Your task to perform on an android device: Turn on the flashlight Image 0: 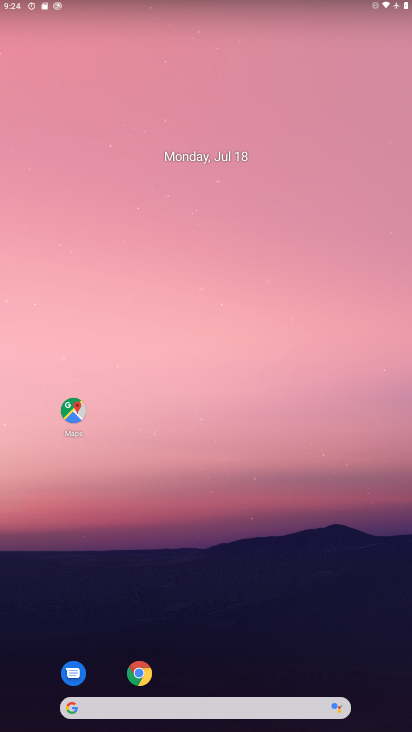
Step 0: press home button
Your task to perform on an android device: Turn on the flashlight Image 1: 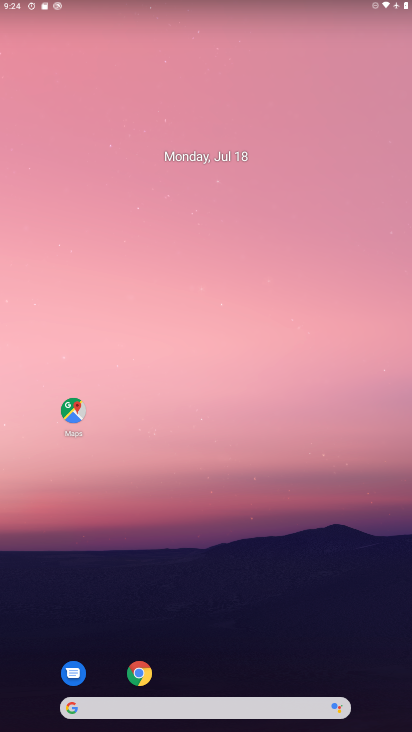
Step 1: task complete